Your task to perform on an android device: find photos in the google photos app Image 0: 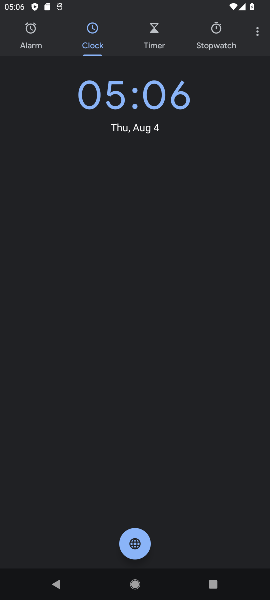
Step 0: press home button
Your task to perform on an android device: find photos in the google photos app Image 1: 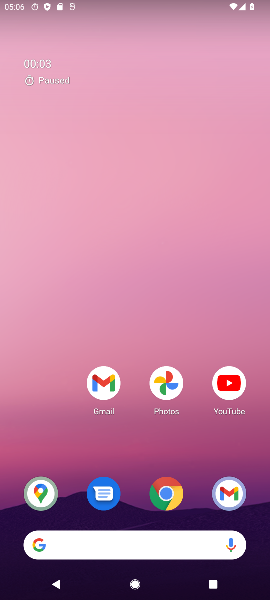
Step 1: click (168, 384)
Your task to perform on an android device: find photos in the google photos app Image 2: 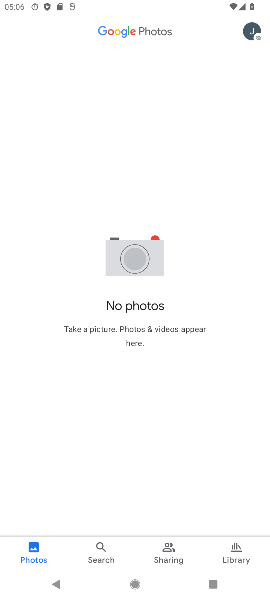
Step 2: task complete